Your task to perform on an android device: Go to network settings Image 0: 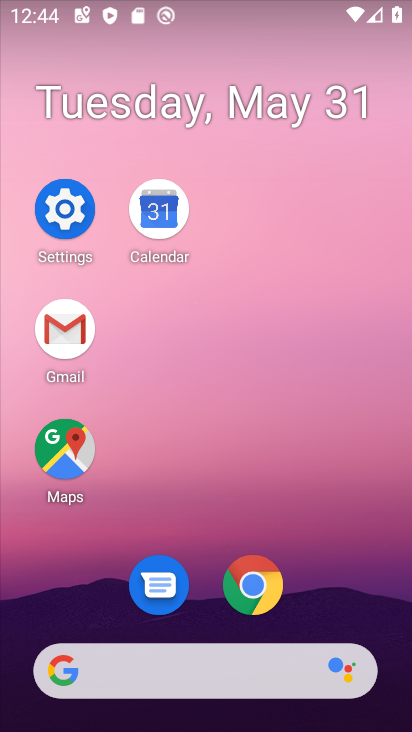
Step 0: click (86, 216)
Your task to perform on an android device: Go to network settings Image 1: 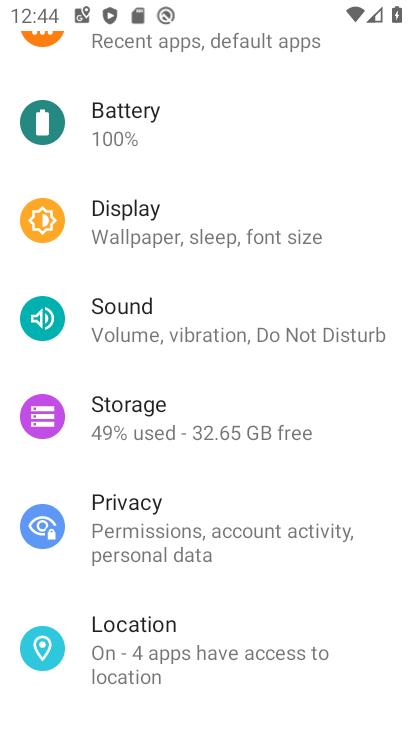
Step 1: drag from (307, 157) to (329, 559)
Your task to perform on an android device: Go to network settings Image 2: 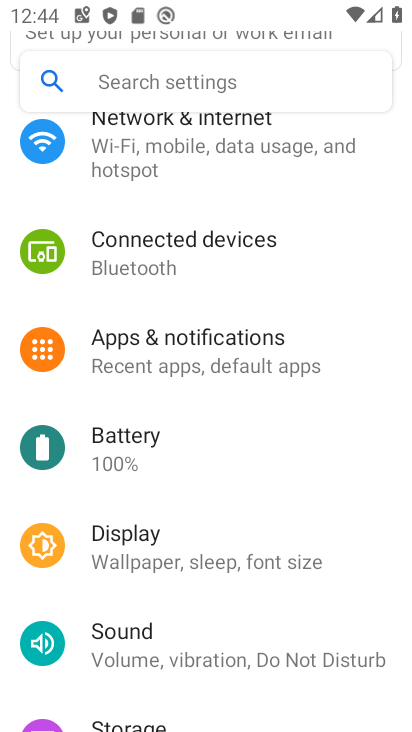
Step 2: click (277, 158)
Your task to perform on an android device: Go to network settings Image 3: 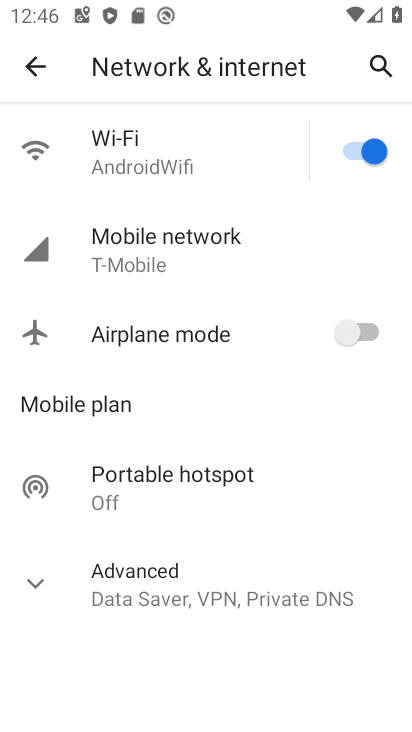
Step 3: task complete